Your task to perform on an android device: stop showing notifications on the lock screen Image 0: 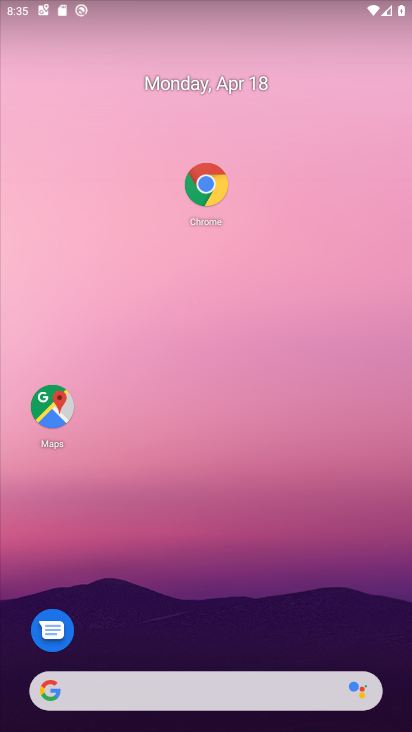
Step 0: drag from (214, 410) to (268, 215)
Your task to perform on an android device: stop showing notifications on the lock screen Image 1: 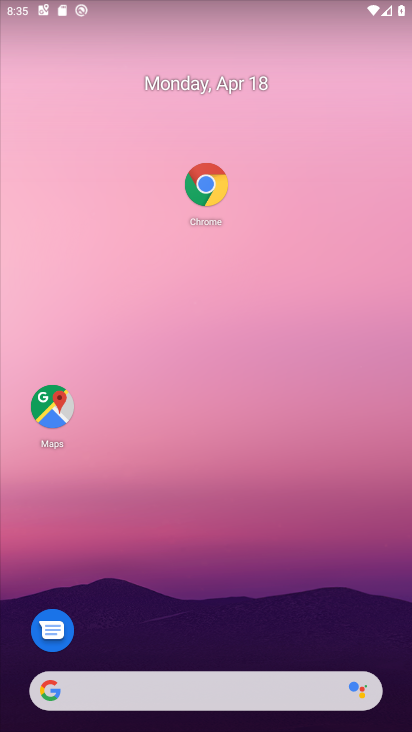
Step 1: drag from (237, 629) to (334, 152)
Your task to perform on an android device: stop showing notifications on the lock screen Image 2: 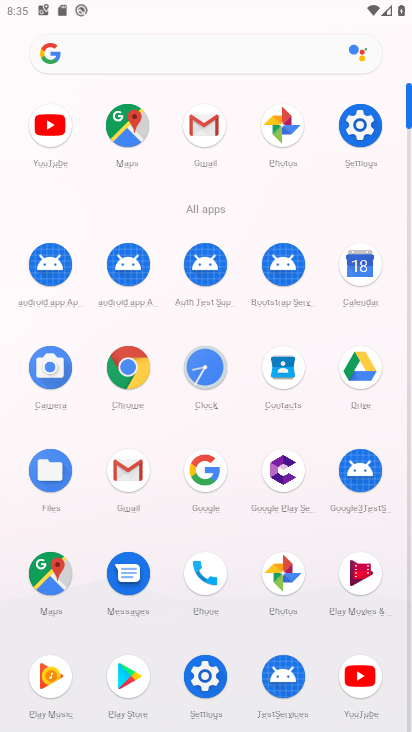
Step 2: click (189, 686)
Your task to perform on an android device: stop showing notifications on the lock screen Image 3: 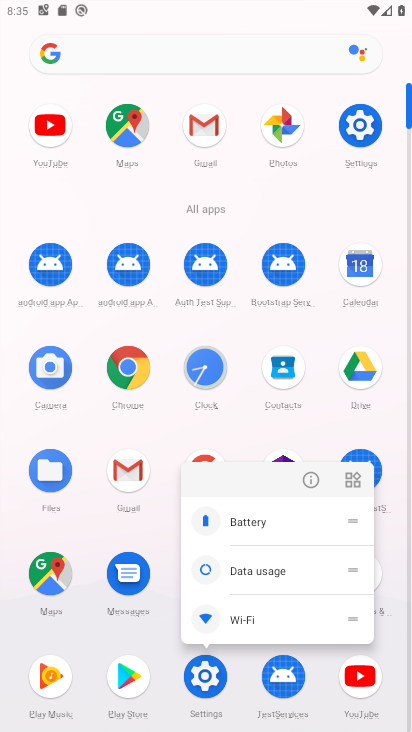
Step 3: click (197, 673)
Your task to perform on an android device: stop showing notifications on the lock screen Image 4: 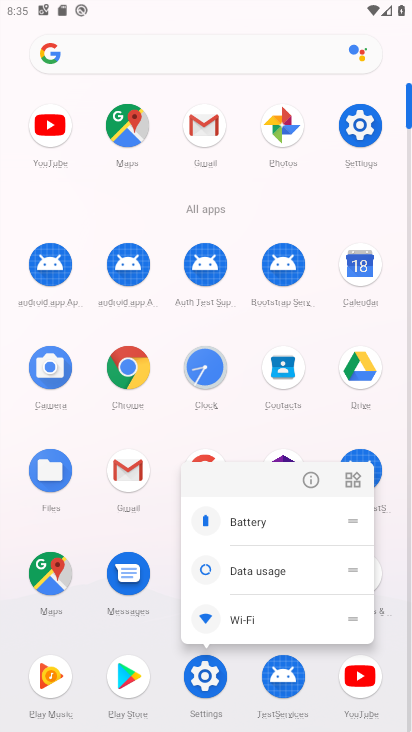
Step 4: click (206, 679)
Your task to perform on an android device: stop showing notifications on the lock screen Image 5: 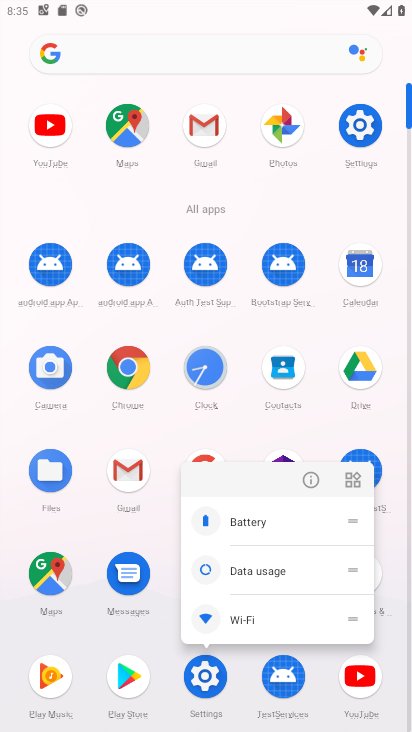
Step 5: click (227, 684)
Your task to perform on an android device: stop showing notifications on the lock screen Image 6: 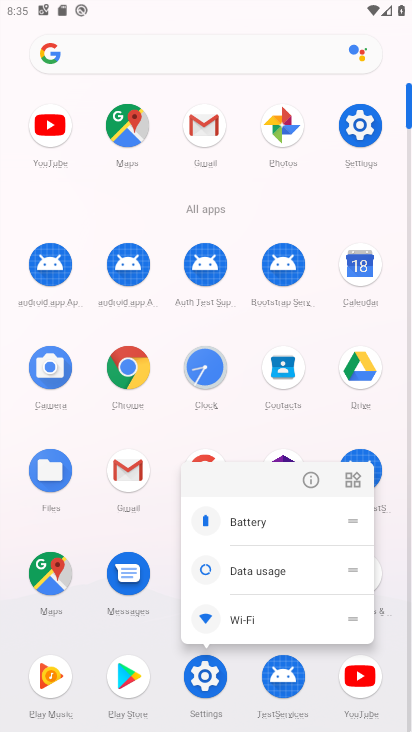
Step 6: click (227, 684)
Your task to perform on an android device: stop showing notifications on the lock screen Image 7: 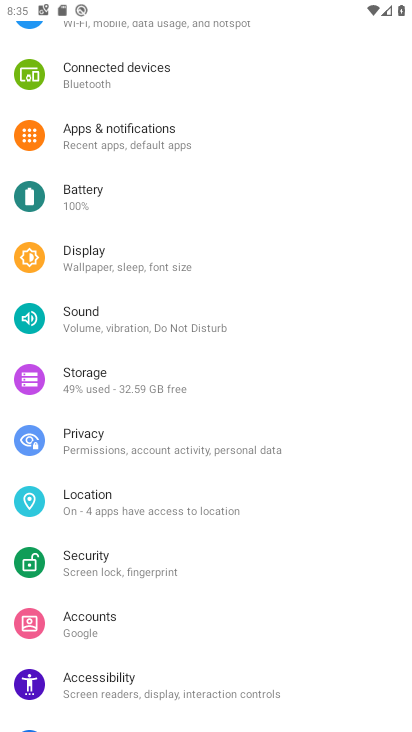
Step 7: click (224, 128)
Your task to perform on an android device: stop showing notifications on the lock screen Image 8: 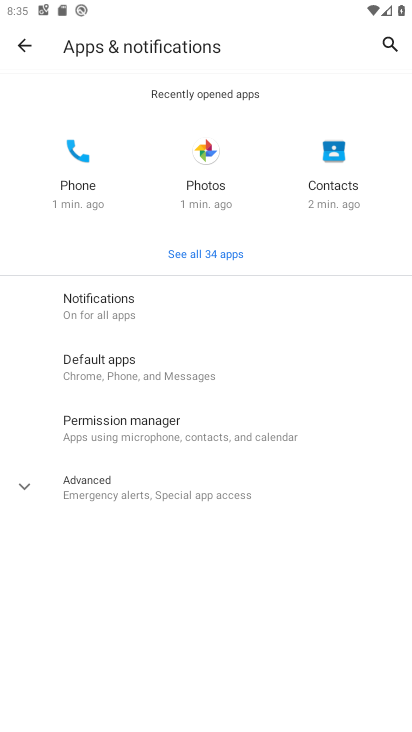
Step 8: click (183, 298)
Your task to perform on an android device: stop showing notifications on the lock screen Image 9: 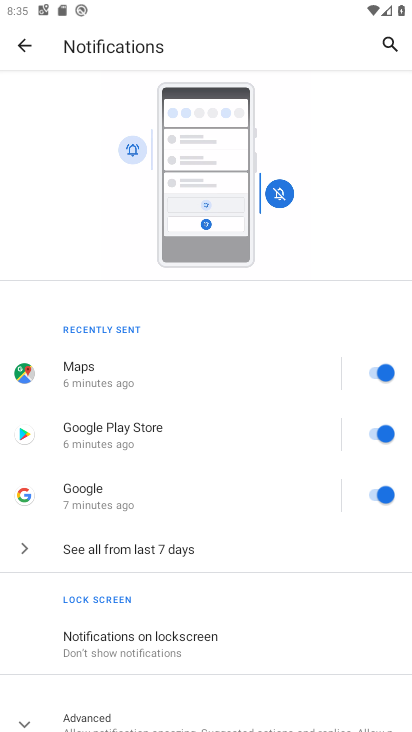
Step 9: click (187, 635)
Your task to perform on an android device: stop showing notifications on the lock screen Image 10: 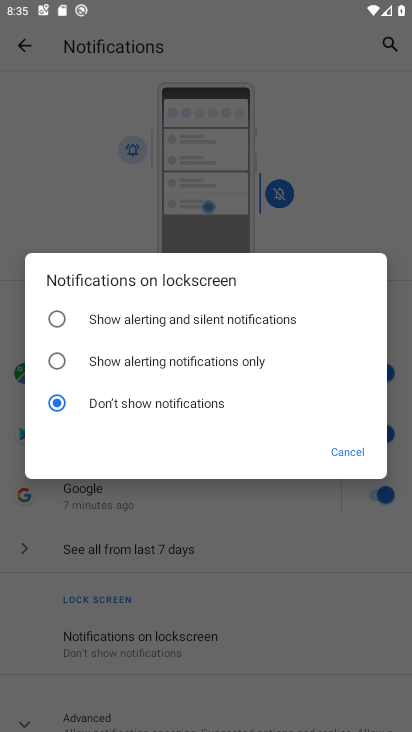
Step 10: task complete